Your task to perform on an android device: Go to ESPN.com Image 0: 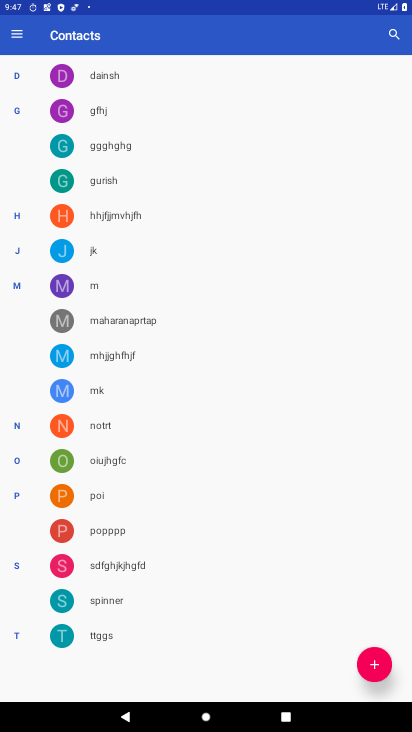
Step 0: press home button
Your task to perform on an android device: Go to ESPN.com Image 1: 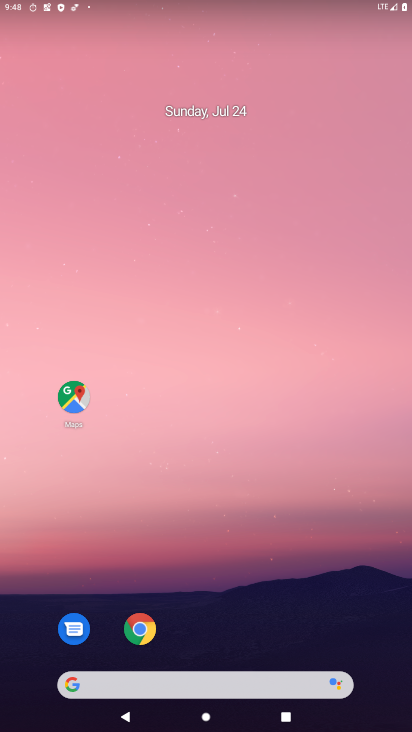
Step 1: click (72, 685)
Your task to perform on an android device: Go to ESPN.com Image 2: 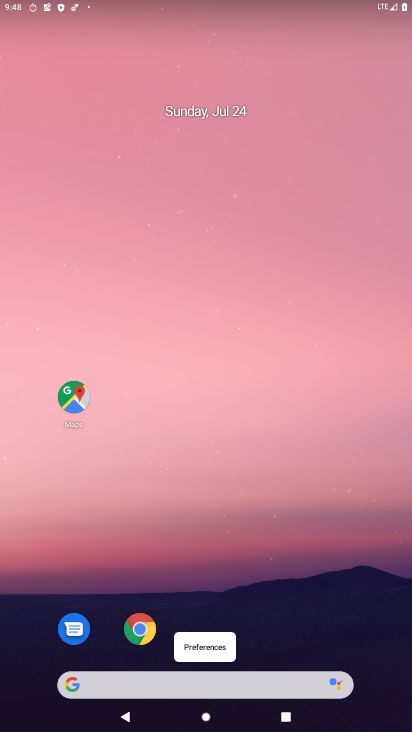
Step 2: click (67, 680)
Your task to perform on an android device: Go to ESPN.com Image 3: 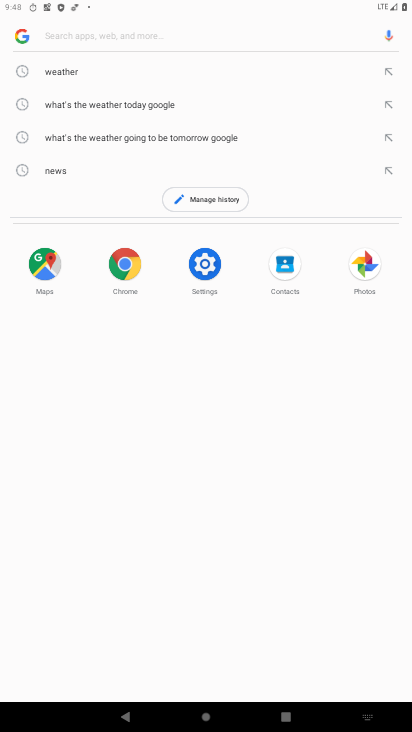
Step 3: type "ESPN.com"
Your task to perform on an android device: Go to ESPN.com Image 4: 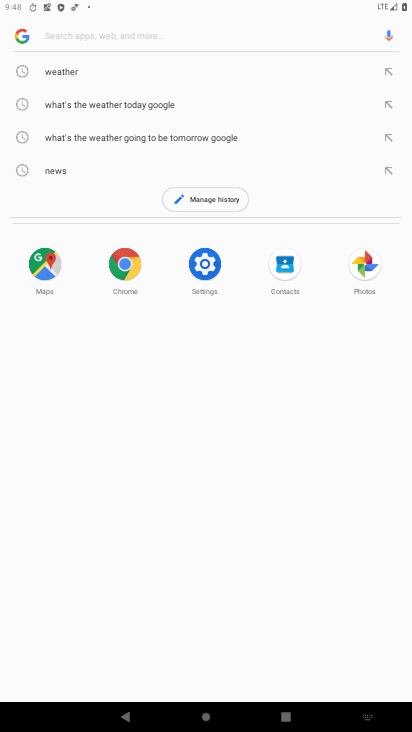
Step 4: click (85, 30)
Your task to perform on an android device: Go to ESPN.com Image 5: 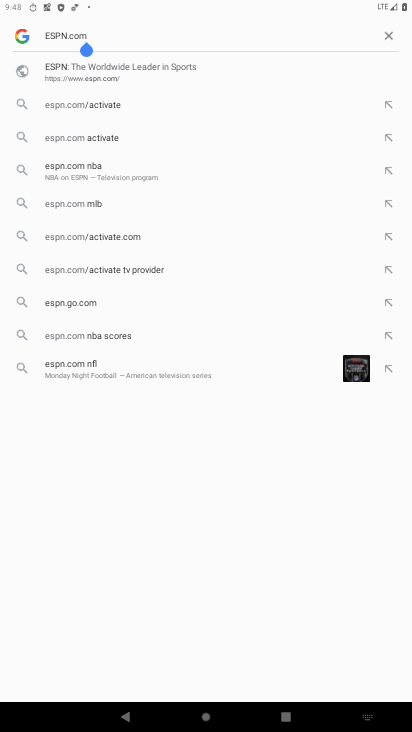
Step 5: click (100, 69)
Your task to perform on an android device: Go to ESPN.com Image 6: 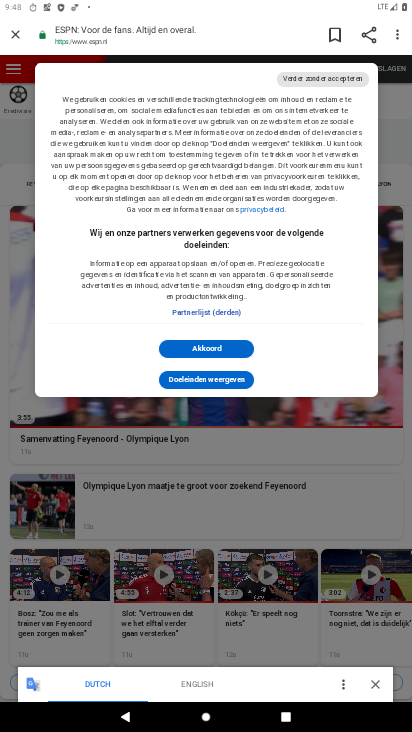
Step 6: click (223, 342)
Your task to perform on an android device: Go to ESPN.com Image 7: 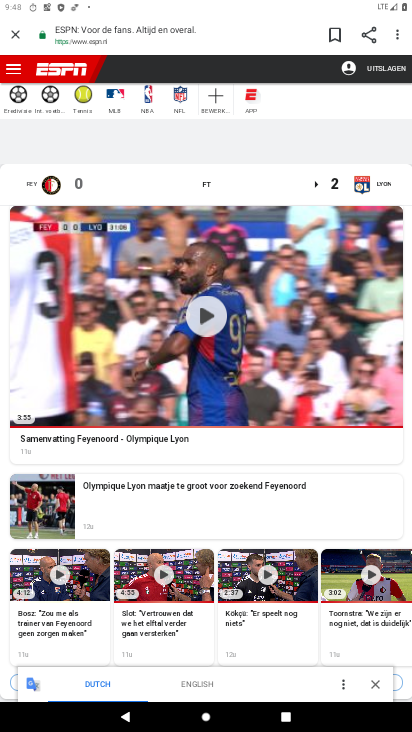
Step 7: task complete